Your task to perform on an android device: Do I have any events this weekend? Image 0: 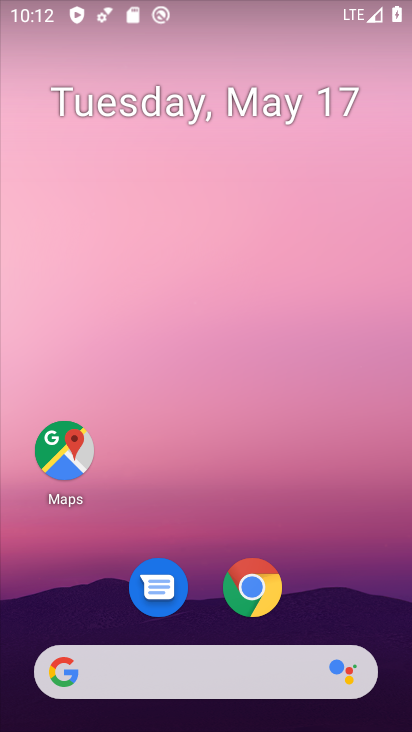
Step 0: drag from (375, 591) to (257, 78)
Your task to perform on an android device: Do I have any events this weekend? Image 1: 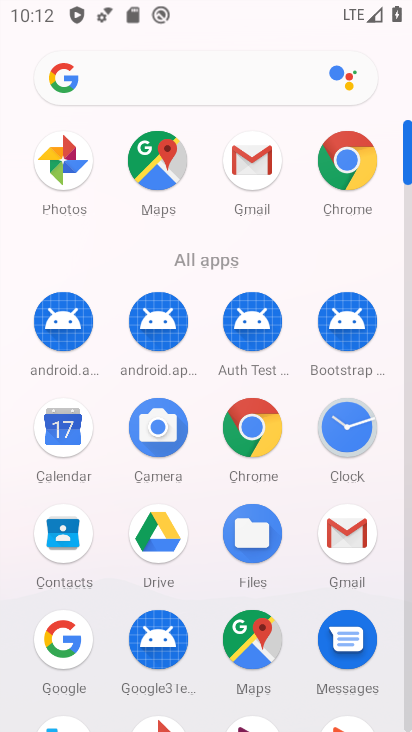
Step 1: click (51, 427)
Your task to perform on an android device: Do I have any events this weekend? Image 2: 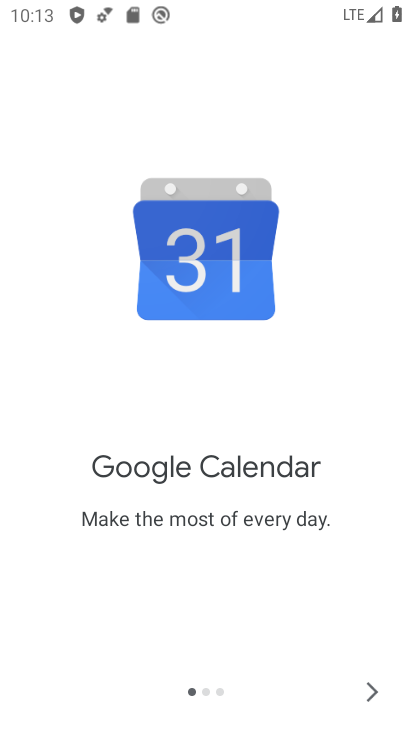
Step 2: click (370, 695)
Your task to perform on an android device: Do I have any events this weekend? Image 3: 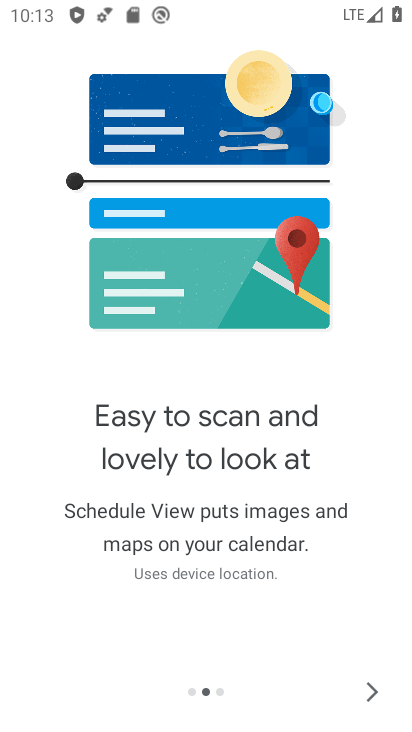
Step 3: click (370, 695)
Your task to perform on an android device: Do I have any events this weekend? Image 4: 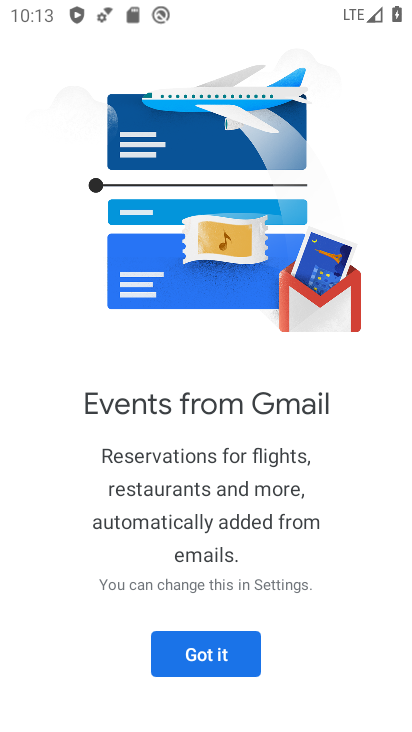
Step 4: click (199, 645)
Your task to perform on an android device: Do I have any events this weekend? Image 5: 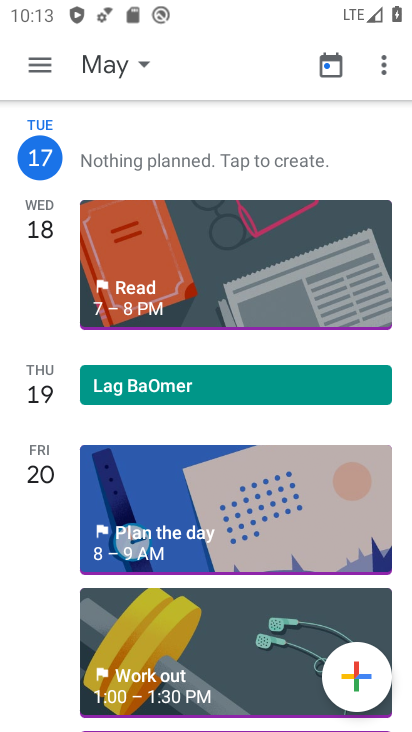
Step 5: click (49, 61)
Your task to perform on an android device: Do I have any events this weekend? Image 6: 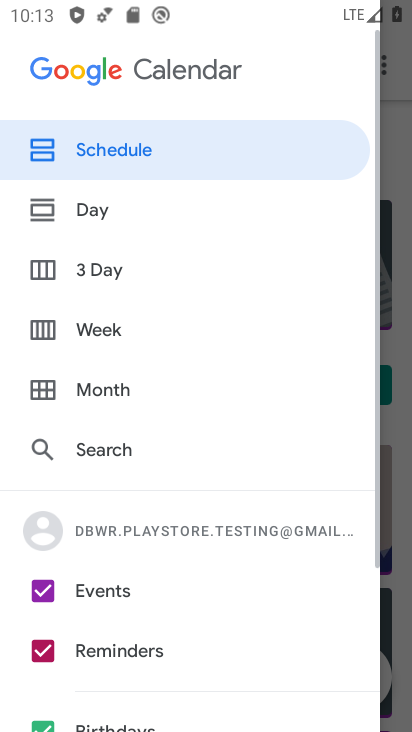
Step 6: click (230, 142)
Your task to perform on an android device: Do I have any events this weekend? Image 7: 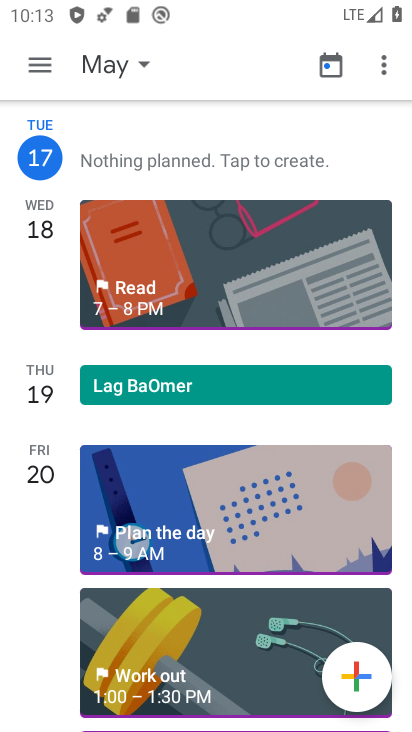
Step 7: task complete